Your task to perform on an android device: Open Google Chrome and open the bookmarks view Image 0: 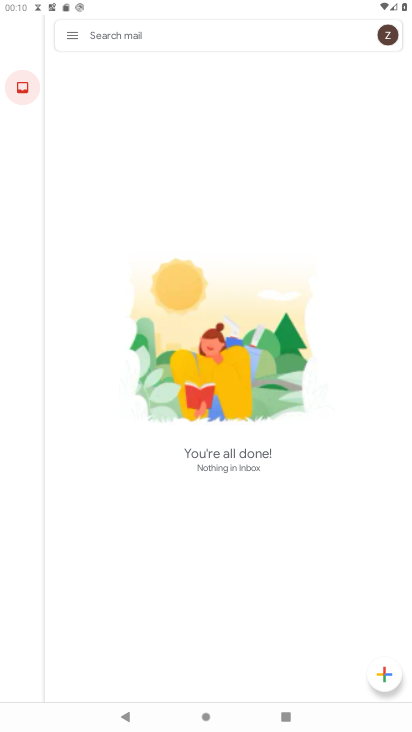
Step 0: press home button
Your task to perform on an android device: Open Google Chrome and open the bookmarks view Image 1: 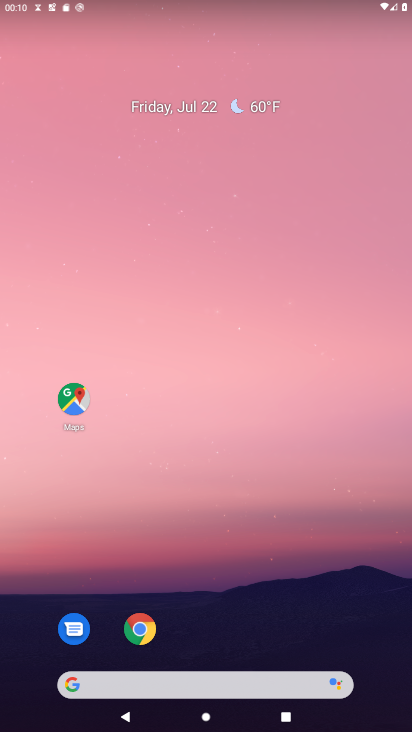
Step 1: click (135, 622)
Your task to perform on an android device: Open Google Chrome and open the bookmarks view Image 2: 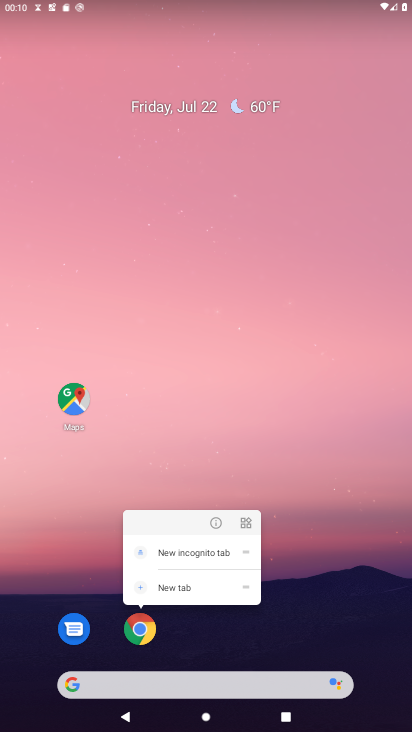
Step 2: click (135, 622)
Your task to perform on an android device: Open Google Chrome and open the bookmarks view Image 3: 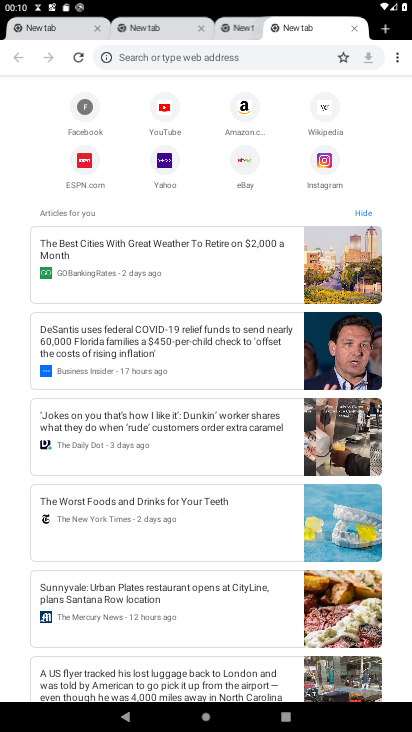
Step 3: click (404, 55)
Your task to perform on an android device: Open Google Chrome and open the bookmarks view Image 4: 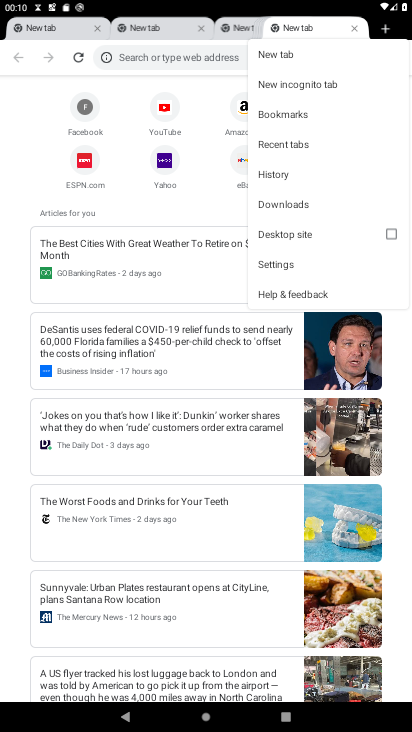
Step 4: click (282, 113)
Your task to perform on an android device: Open Google Chrome and open the bookmarks view Image 5: 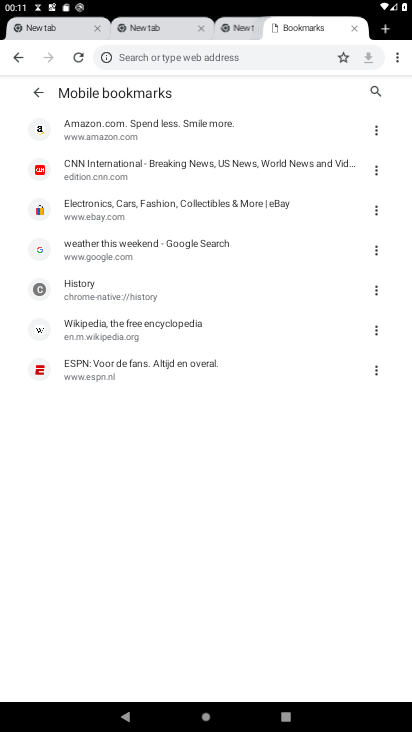
Step 5: task complete